Your task to perform on an android device: empty trash in the gmail app Image 0: 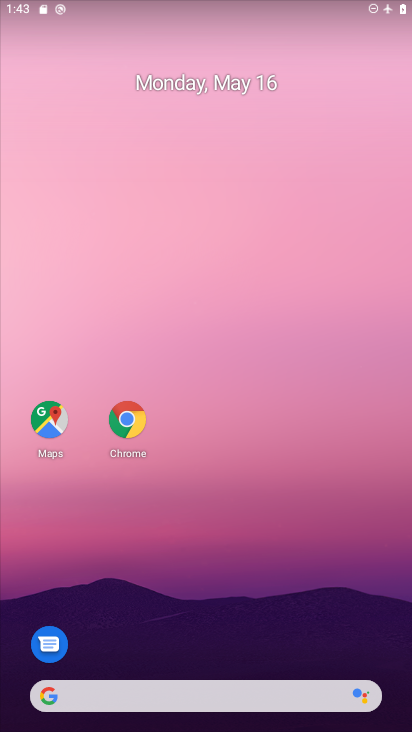
Step 0: drag from (174, 646) to (216, 135)
Your task to perform on an android device: empty trash in the gmail app Image 1: 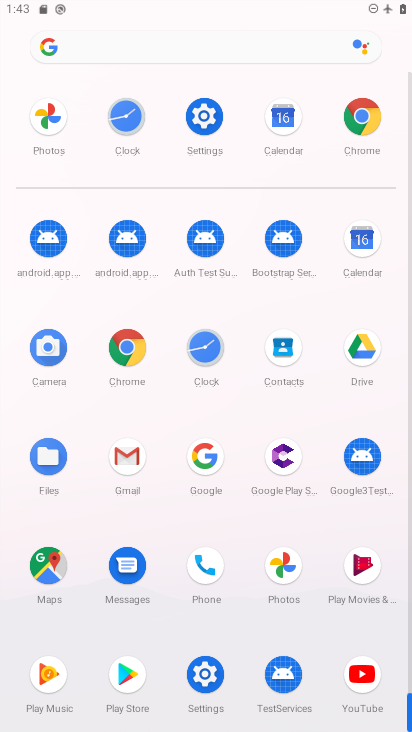
Step 1: click (125, 455)
Your task to perform on an android device: empty trash in the gmail app Image 2: 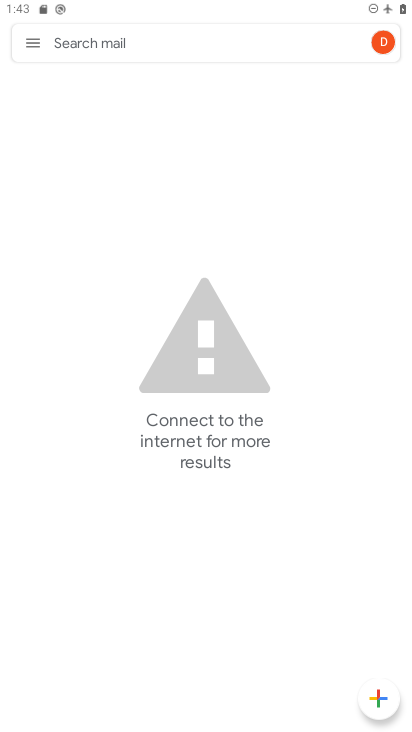
Step 2: click (25, 44)
Your task to perform on an android device: empty trash in the gmail app Image 3: 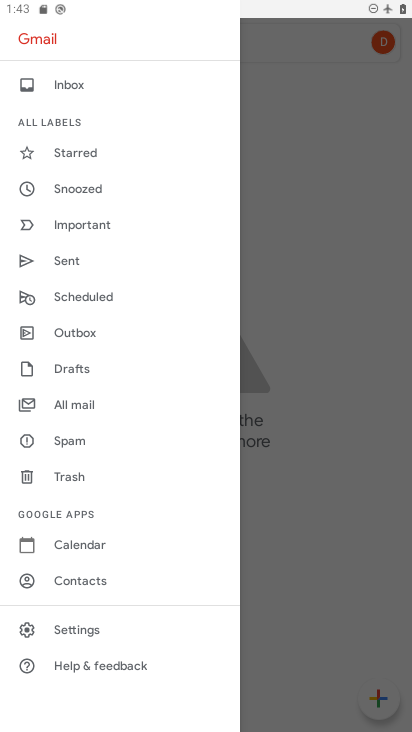
Step 3: click (70, 471)
Your task to perform on an android device: empty trash in the gmail app Image 4: 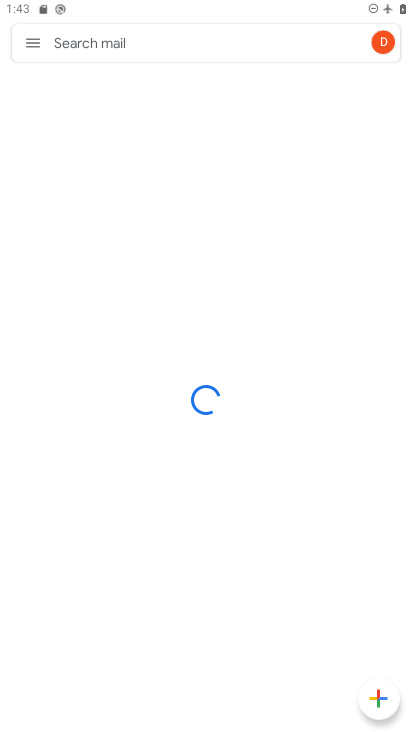
Step 4: drag from (191, 186) to (231, 534)
Your task to perform on an android device: empty trash in the gmail app Image 5: 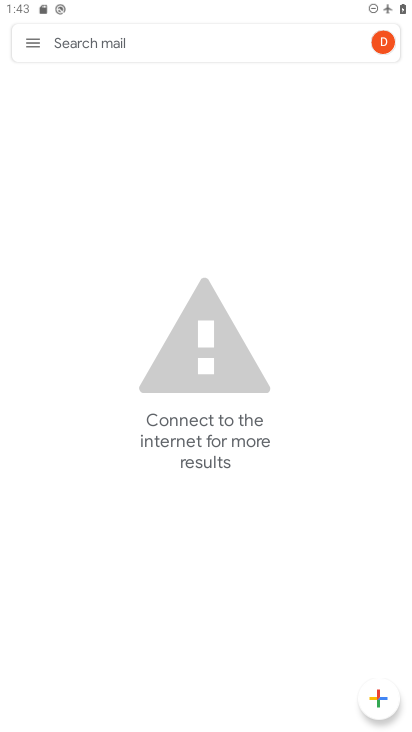
Step 5: click (136, 369)
Your task to perform on an android device: empty trash in the gmail app Image 6: 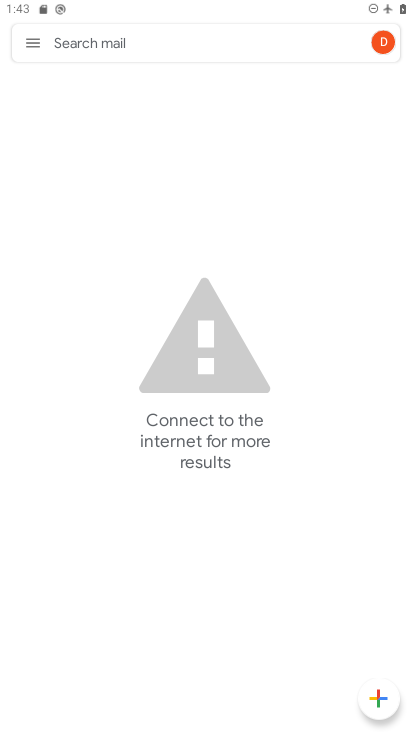
Step 6: task complete